Your task to perform on an android device: Go to Android settings Image 0: 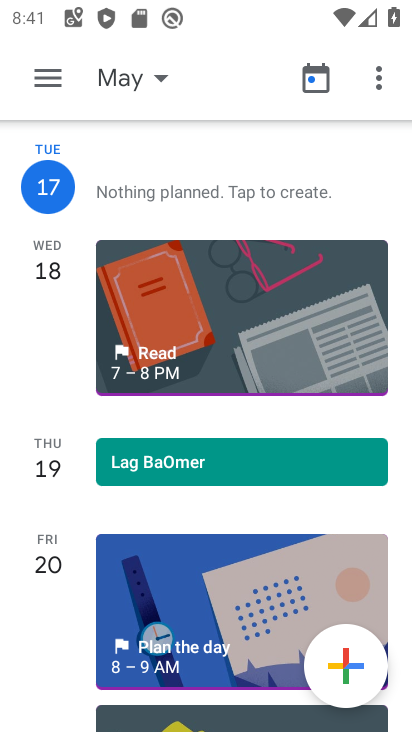
Step 0: press home button
Your task to perform on an android device: Go to Android settings Image 1: 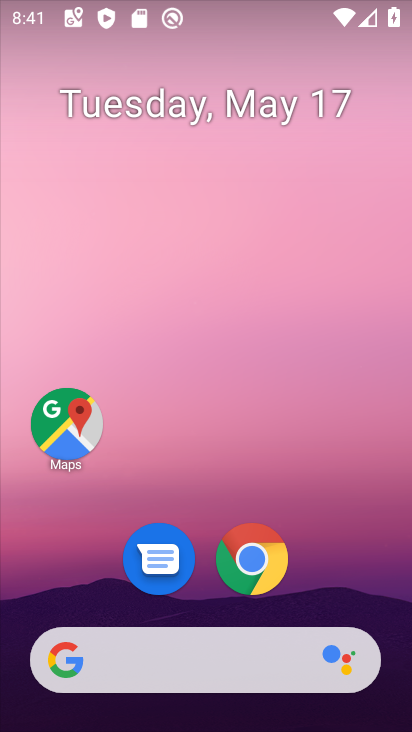
Step 1: drag from (185, 608) to (306, 22)
Your task to perform on an android device: Go to Android settings Image 2: 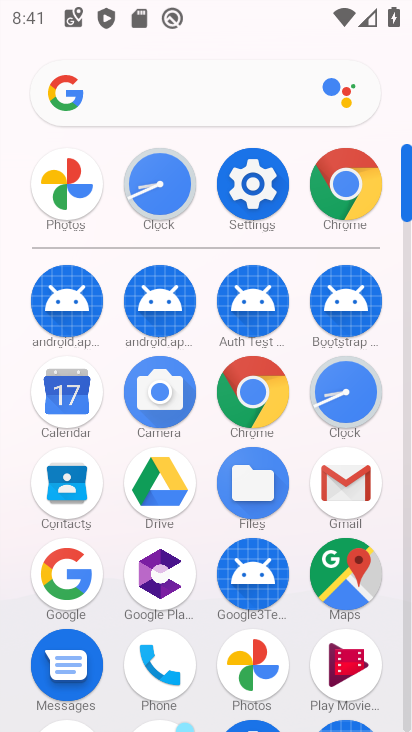
Step 2: click (253, 181)
Your task to perform on an android device: Go to Android settings Image 3: 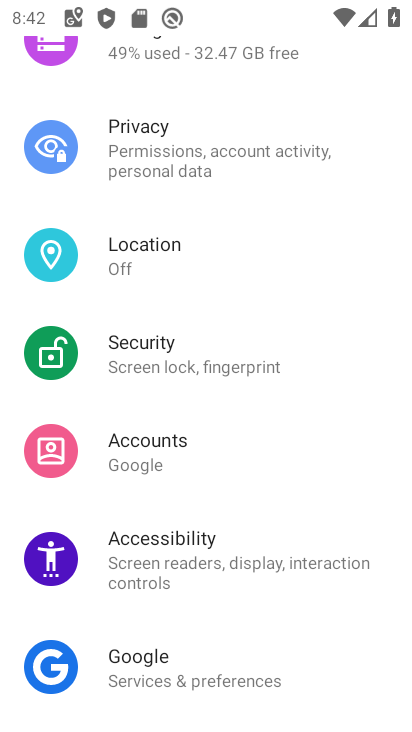
Step 3: task complete